Your task to perform on an android device: turn off location history Image 0: 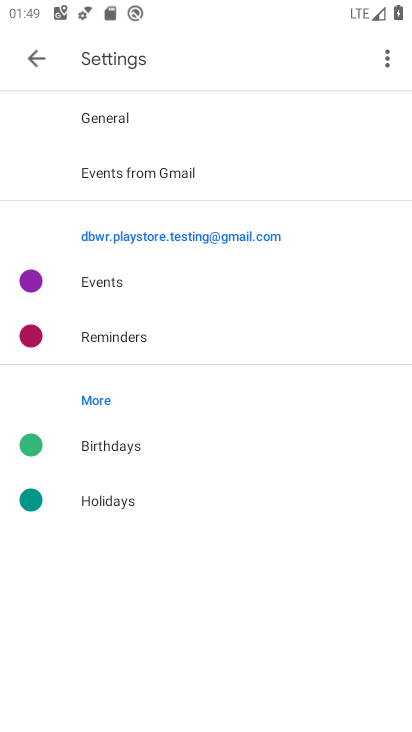
Step 0: press home button
Your task to perform on an android device: turn off location history Image 1: 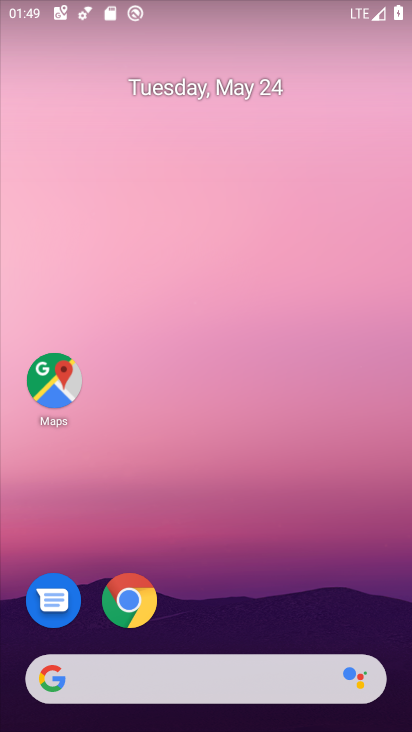
Step 1: drag from (333, 432) to (262, 183)
Your task to perform on an android device: turn off location history Image 2: 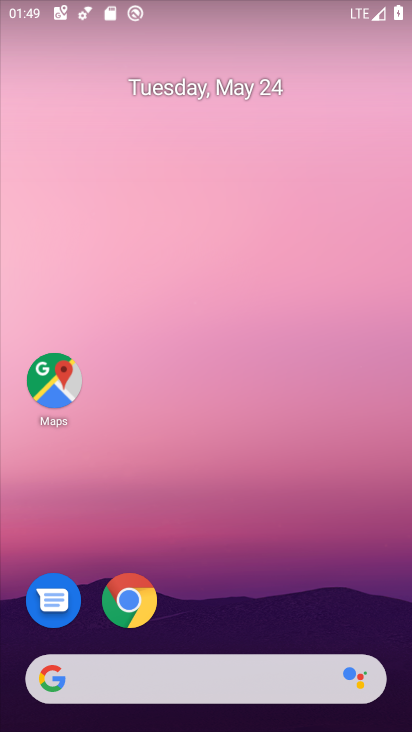
Step 2: drag from (212, 574) to (178, 143)
Your task to perform on an android device: turn off location history Image 3: 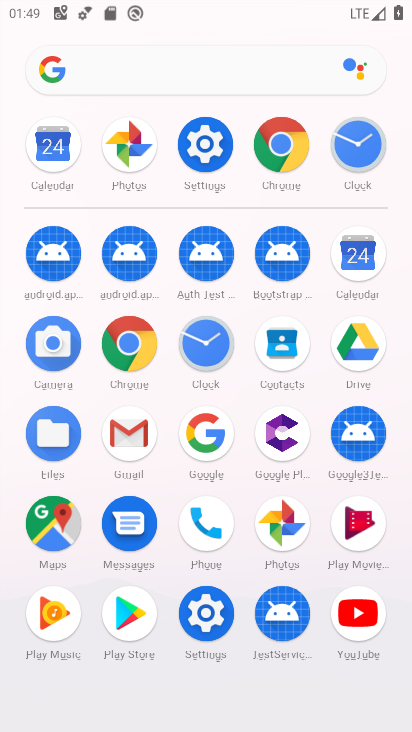
Step 3: click (199, 606)
Your task to perform on an android device: turn off location history Image 4: 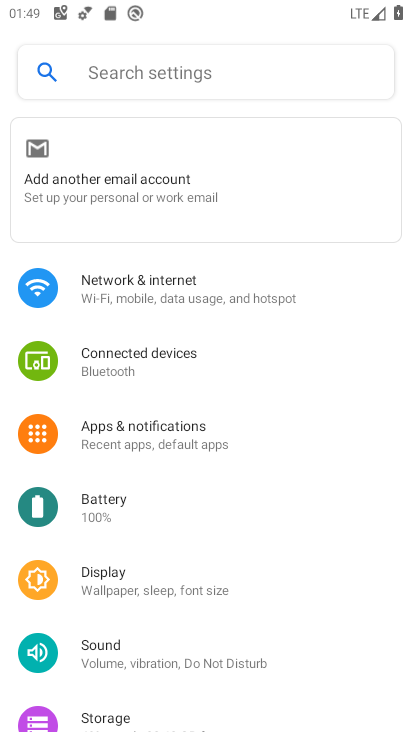
Step 4: drag from (225, 554) to (227, 206)
Your task to perform on an android device: turn off location history Image 5: 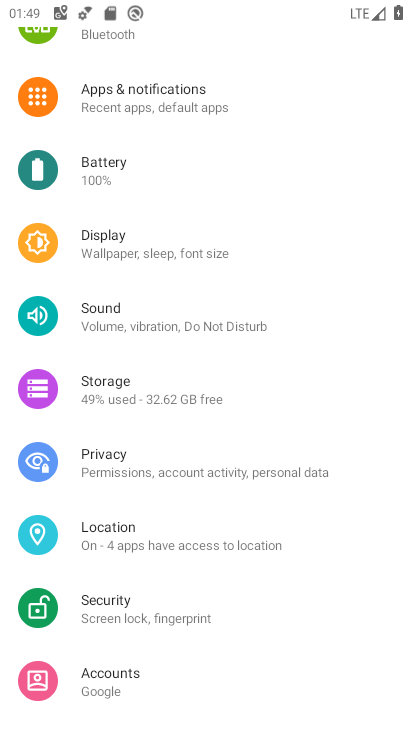
Step 5: click (165, 549)
Your task to perform on an android device: turn off location history Image 6: 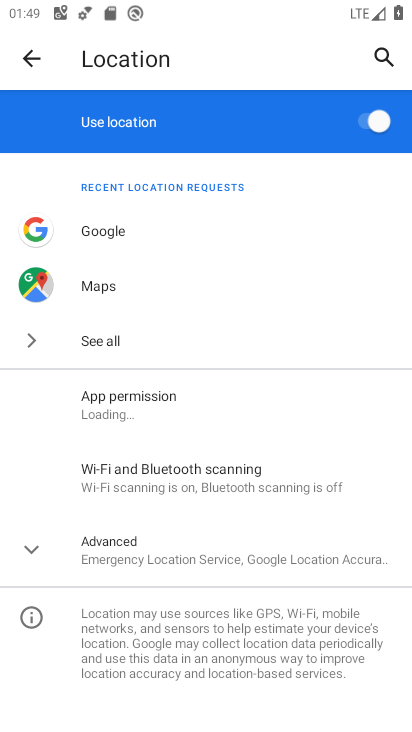
Step 6: click (376, 124)
Your task to perform on an android device: turn off location history Image 7: 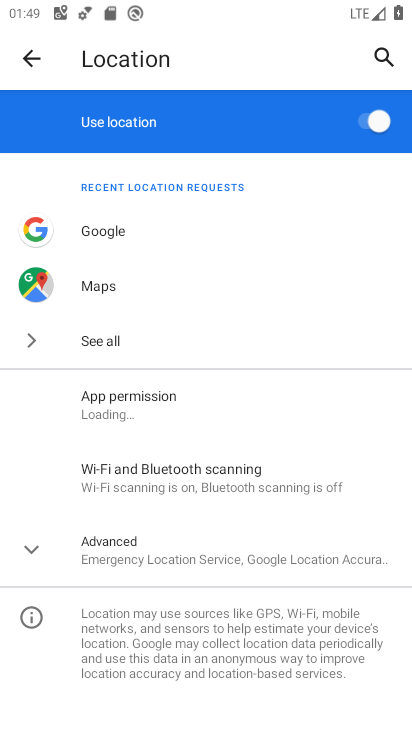
Step 7: click (376, 124)
Your task to perform on an android device: turn off location history Image 8: 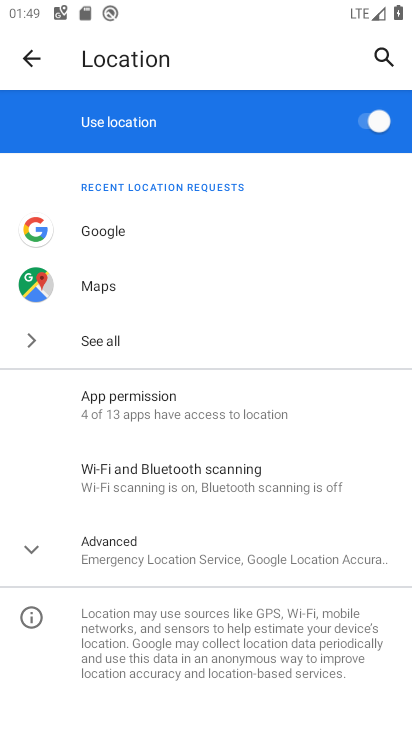
Step 8: click (376, 124)
Your task to perform on an android device: turn off location history Image 9: 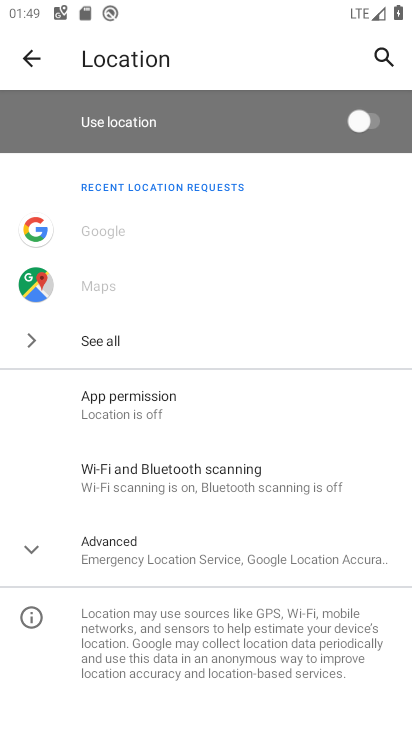
Step 9: click (149, 546)
Your task to perform on an android device: turn off location history Image 10: 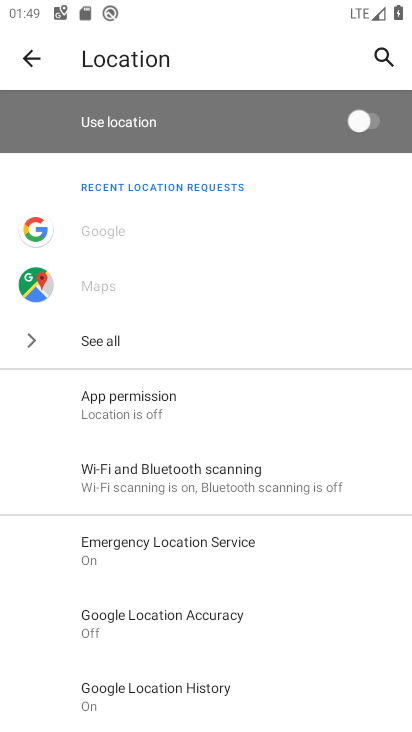
Step 10: click (204, 667)
Your task to perform on an android device: turn off location history Image 11: 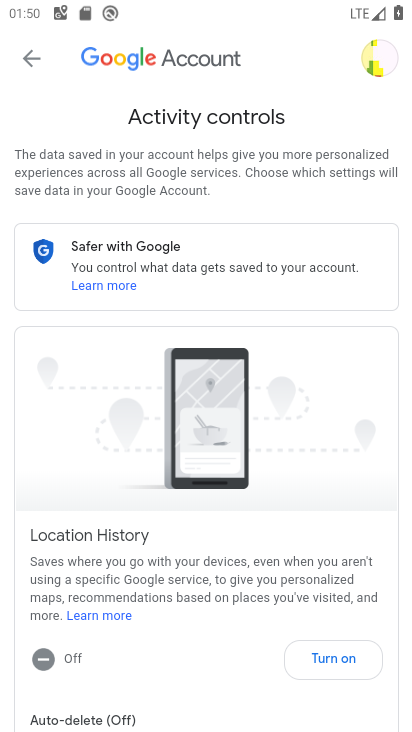
Step 11: click (41, 661)
Your task to perform on an android device: turn off location history Image 12: 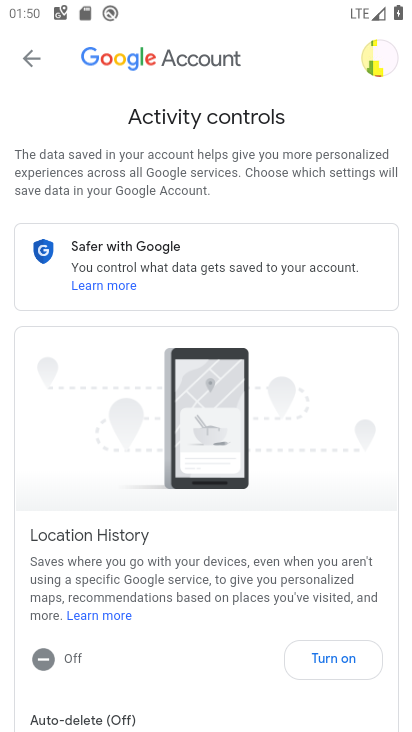
Step 12: click (69, 653)
Your task to perform on an android device: turn off location history Image 13: 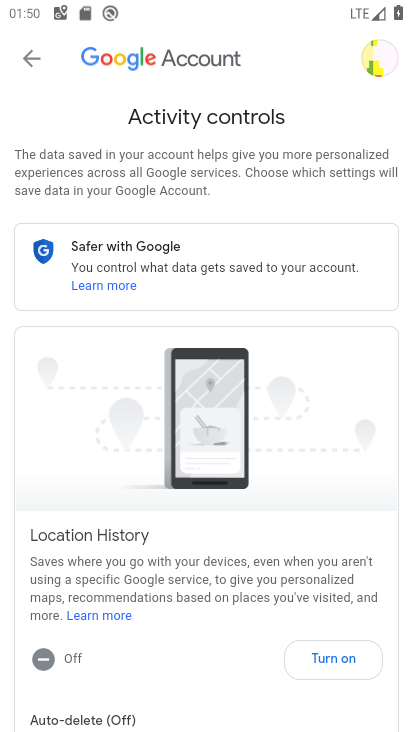
Step 13: click (107, 720)
Your task to perform on an android device: turn off location history Image 14: 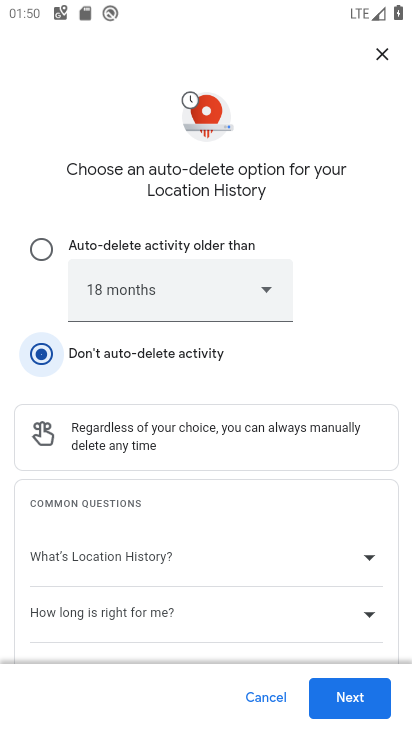
Step 14: click (343, 695)
Your task to perform on an android device: turn off location history Image 15: 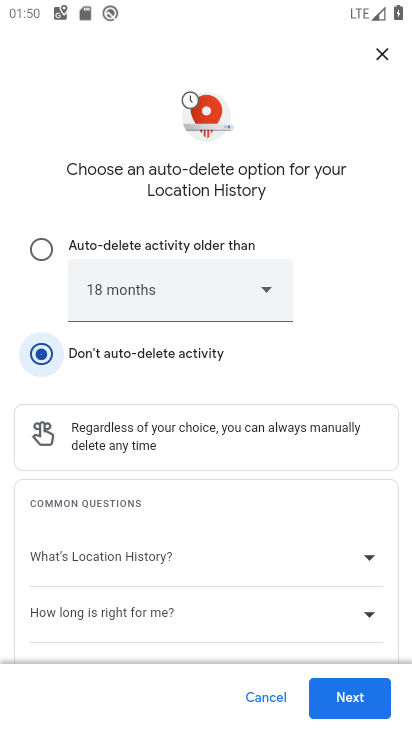
Step 15: click (343, 695)
Your task to perform on an android device: turn off location history Image 16: 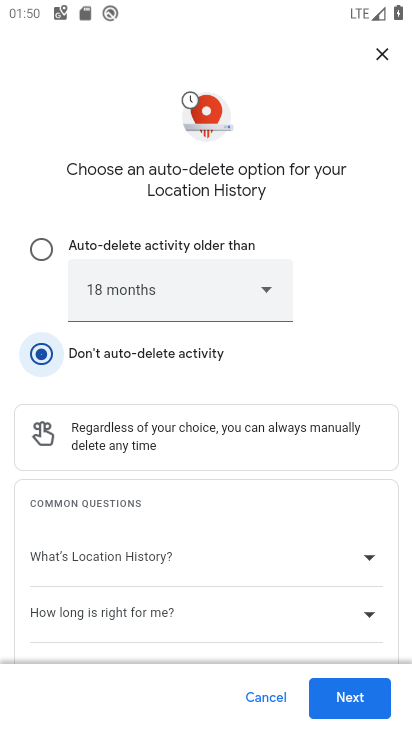
Step 16: click (343, 695)
Your task to perform on an android device: turn off location history Image 17: 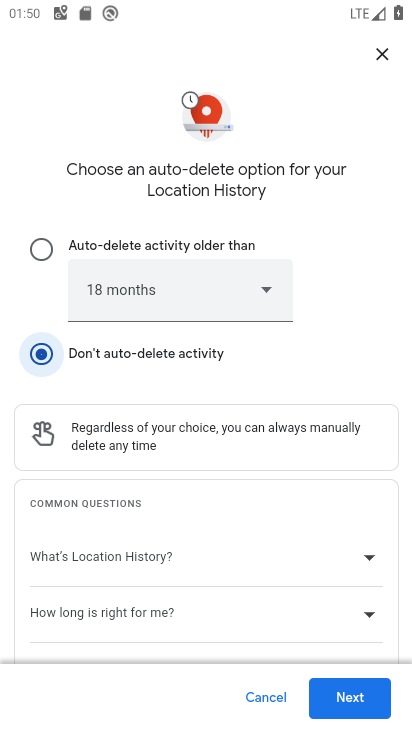
Step 17: click (343, 695)
Your task to perform on an android device: turn off location history Image 18: 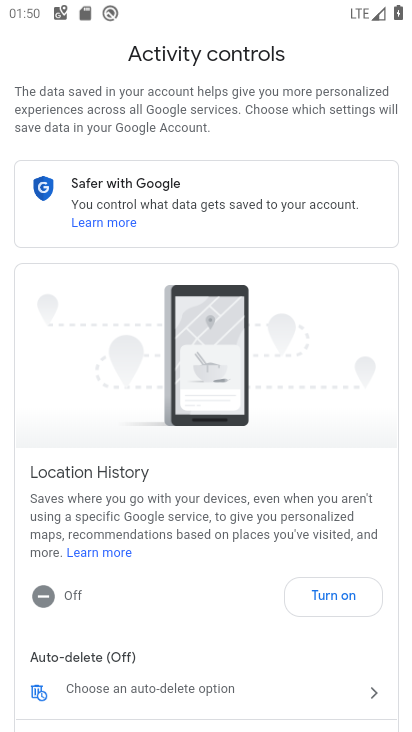
Step 18: click (343, 695)
Your task to perform on an android device: turn off location history Image 19: 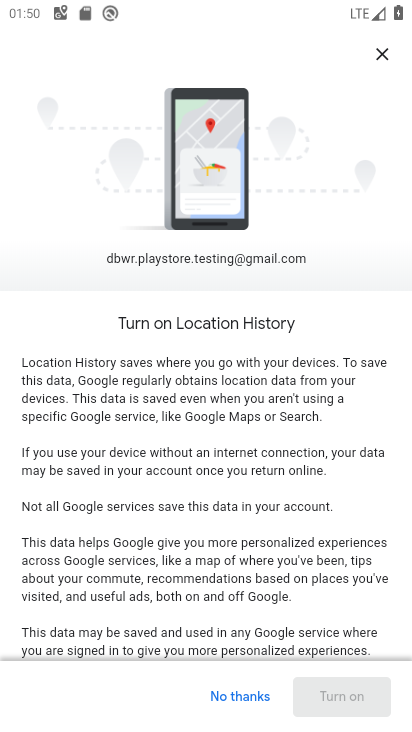
Step 19: click (260, 692)
Your task to perform on an android device: turn off location history Image 20: 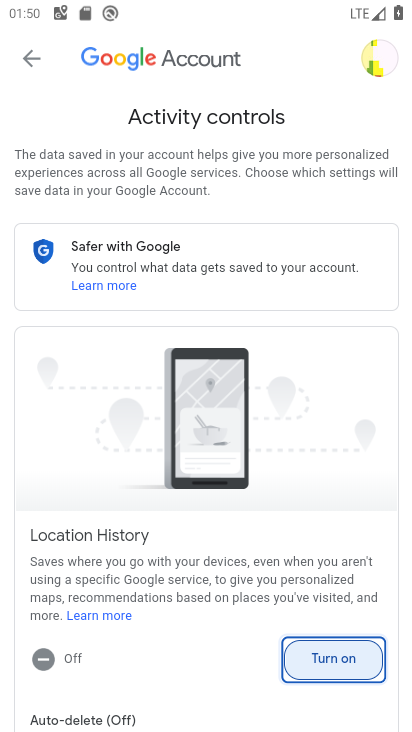
Step 20: click (72, 663)
Your task to perform on an android device: turn off location history Image 21: 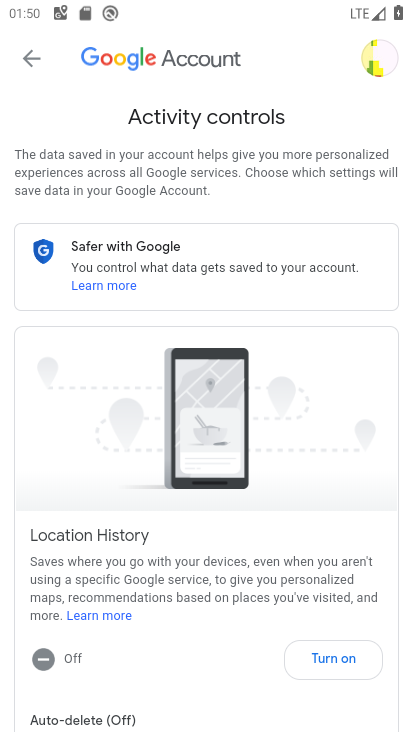
Step 21: click (72, 663)
Your task to perform on an android device: turn off location history Image 22: 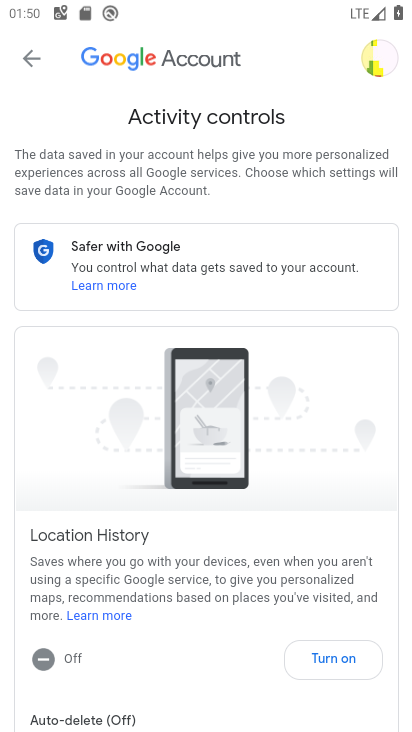
Step 22: task complete